Your task to perform on an android device: open chrome and create a bookmark for the current page Image 0: 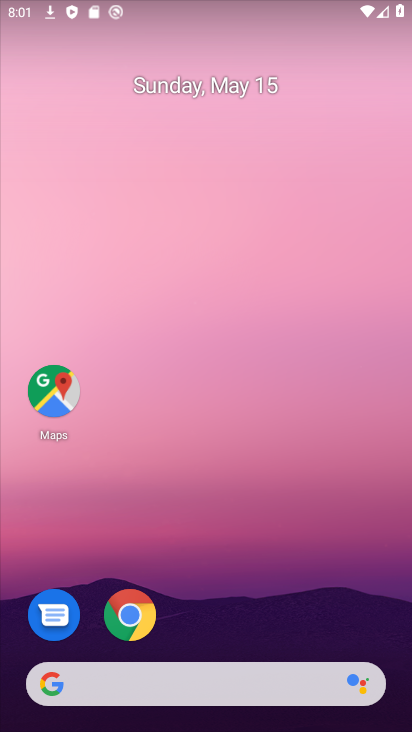
Step 0: press home button
Your task to perform on an android device: open chrome and create a bookmark for the current page Image 1: 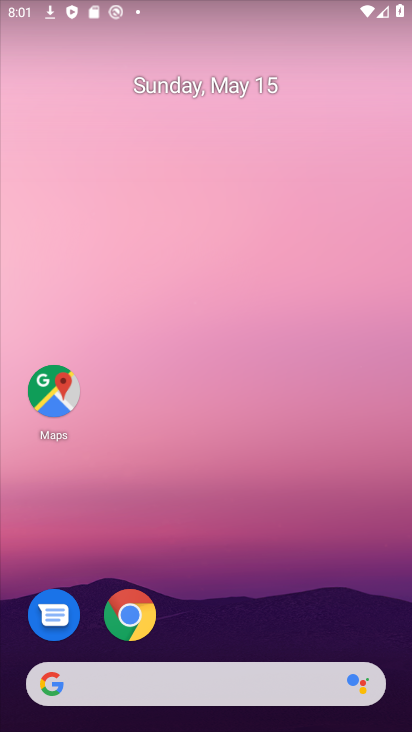
Step 1: drag from (266, 713) to (347, 203)
Your task to perform on an android device: open chrome and create a bookmark for the current page Image 2: 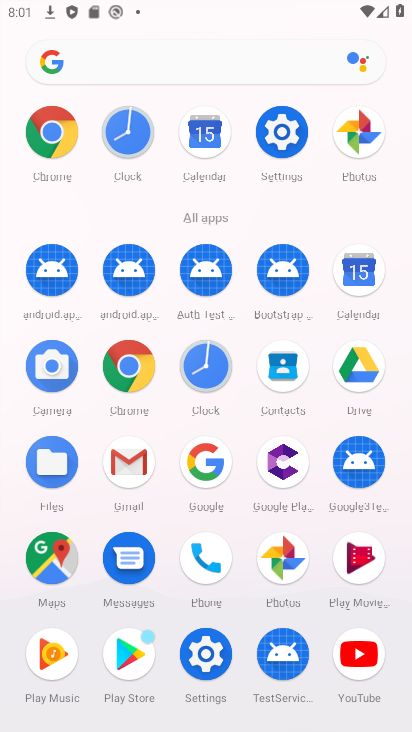
Step 2: click (121, 373)
Your task to perform on an android device: open chrome and create a bookmark for the current page Image 3: 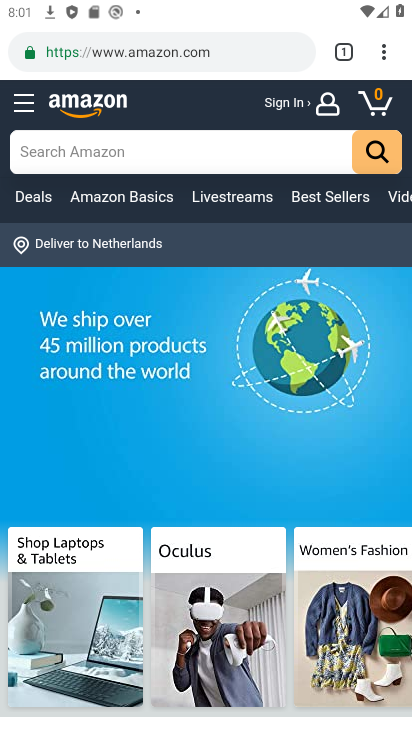
Step 3: click (376, 54)
Your task to perform on an android device: open chrome and create a bookmark for the current page Image 4: 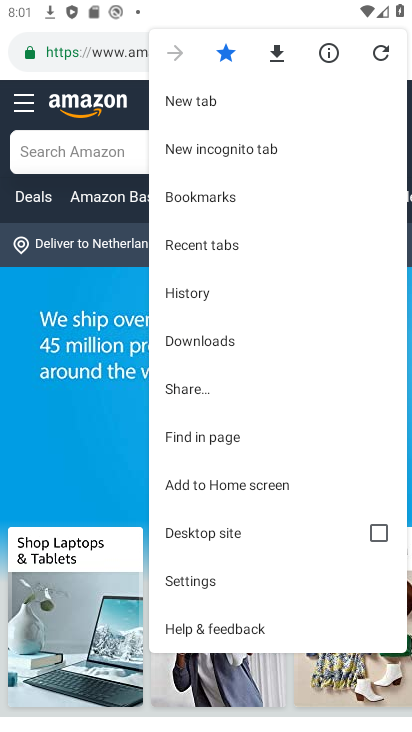
Step 4: click (228, 201)
Your task to perform on an android device: open chrome and create a bookmark for the current page Image 5: 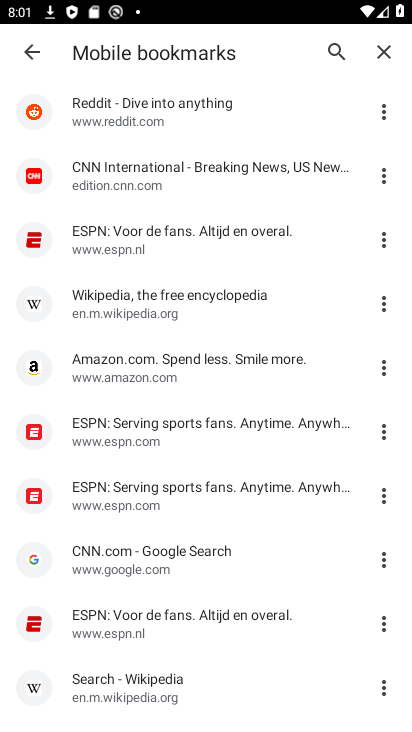
Step 5: task complete